Your task to perform on an android device: change your default location settings in chrome Image 0: 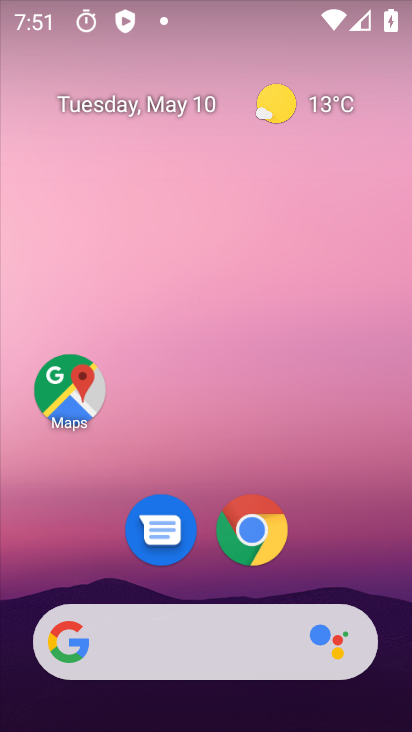
Step 0: drag from (309, 604) to (283, 128)
Your task to perform on an android device: change your default location settings in chrome Image 1: 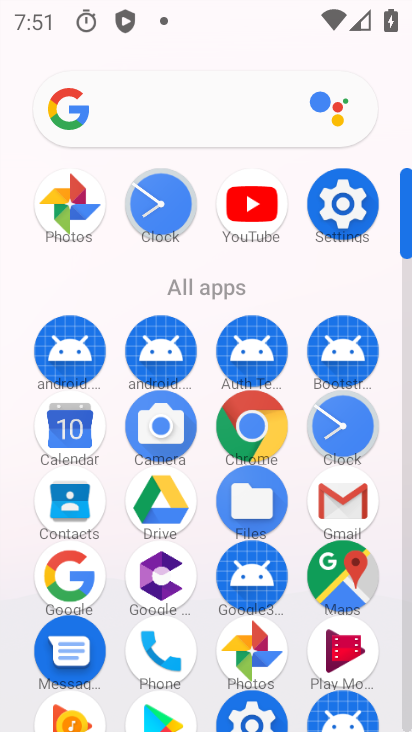
Step 1: click (248, 424)
Your task to perform on an android device: change your default location settings in chrome Image 2: 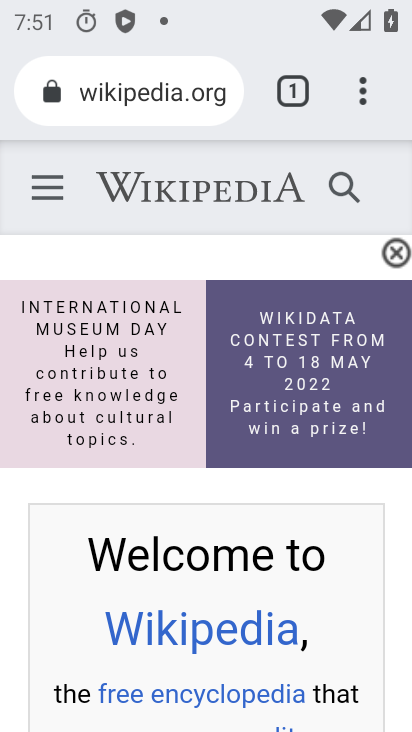
Step 2: click (365, 80)
Your task to perform on an android device: change your default location settings in chrome Image 3: 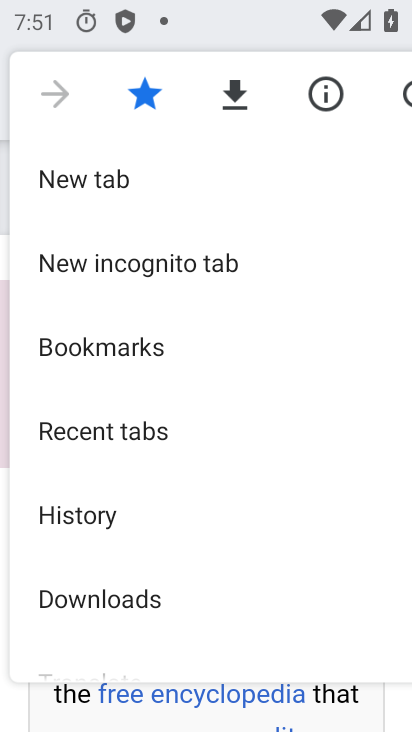
Step 3: drag from (158, 664) to (253, 252)
Your task to perform on an android device: change your default location settings in chrome Image 4: 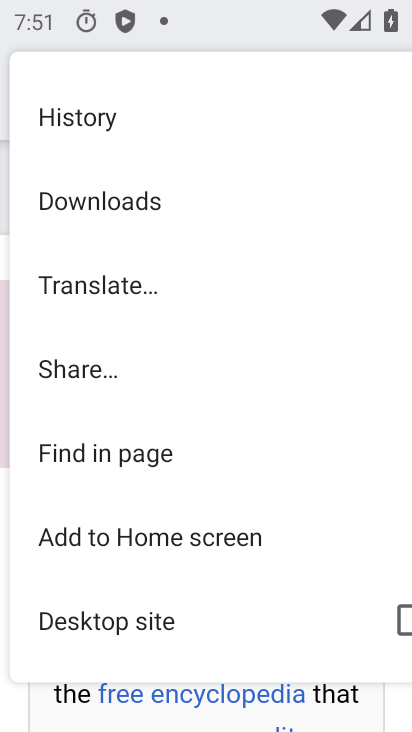
Step 4: drag from (150, 579) to (300, 246)
Your task to perform on an android device: change your default location settings in chrome Image 5: 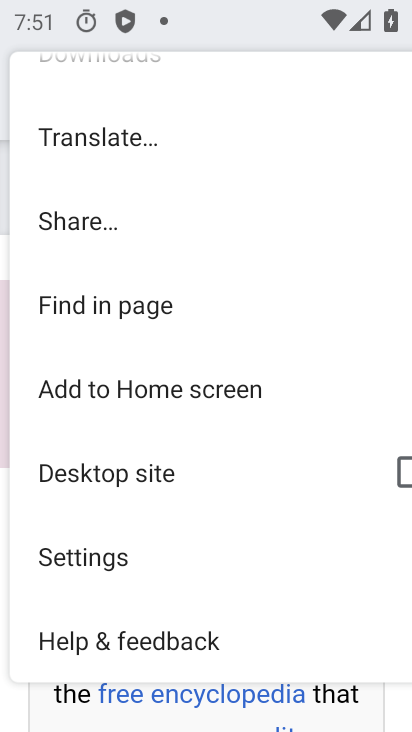
Step 5: click (92, 548)
Your task to perform on an android device: change your default location settings in chrome Image 6: 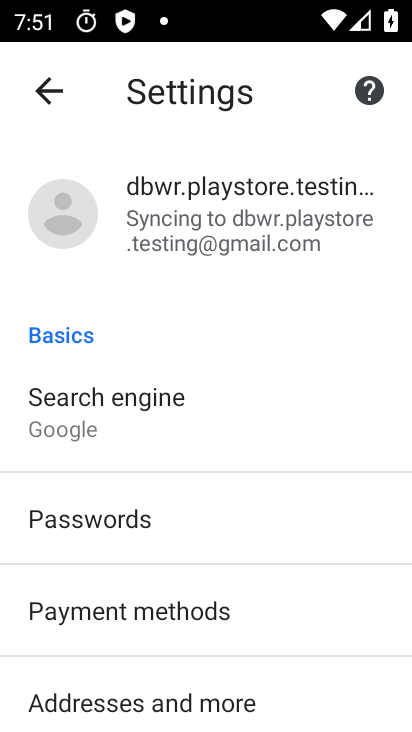
Step 6: drag from (320, 605) to (293, 168)
Your task to perform on an android device: change your default location settings in chrome Image 7: 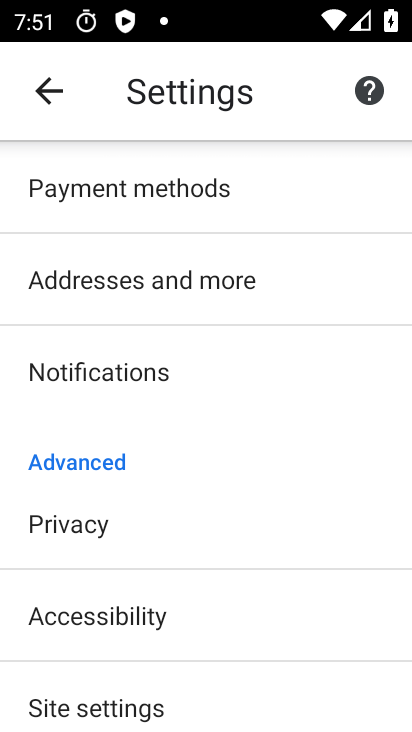
Step 7: drag from (216, 620) to (228, 296)
Your task to perform on an android device: change your default location settings in chrome Image 8: 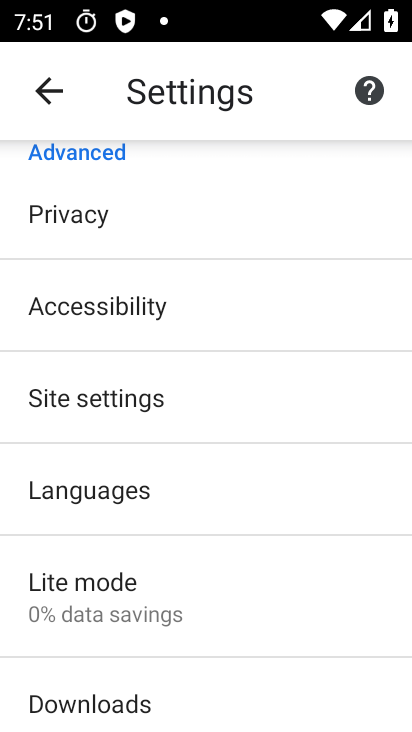
Step 8: click (170, 401)
Your task to perform on an android device: change your default location settings in chrome Image 9: 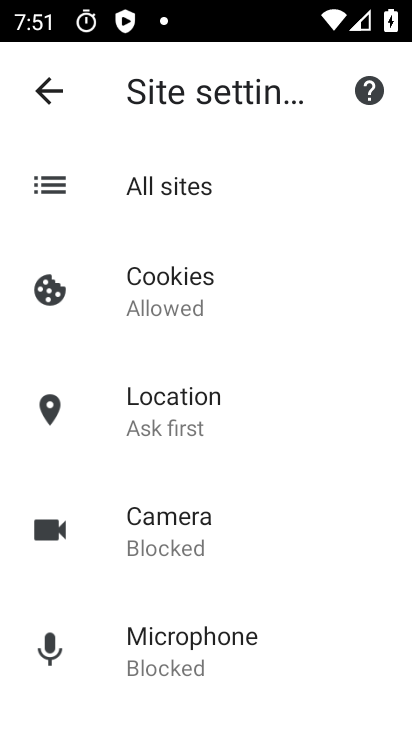
Step 9: drag from (263, 613) to (243, 263)
Your task to perform on an android device: change your default location settings in chrome Image 10: 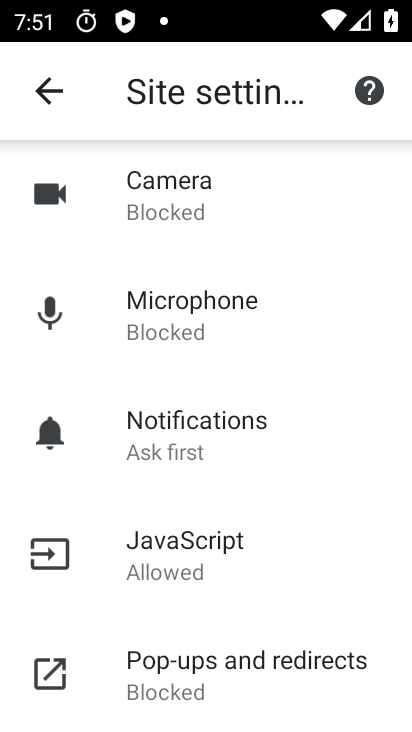
Step 10: drag from (308, 567) to (358, 249)
Your task to perform on an android device: change your default location settings in chrome Image 11: 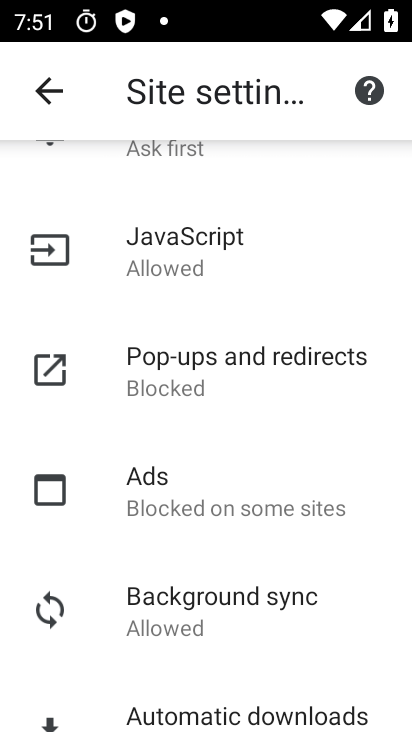
Step 11: drag from (278, 225) to (328, 77)
Your task to perform on an android device: change your default location settings in chrome Image 12: 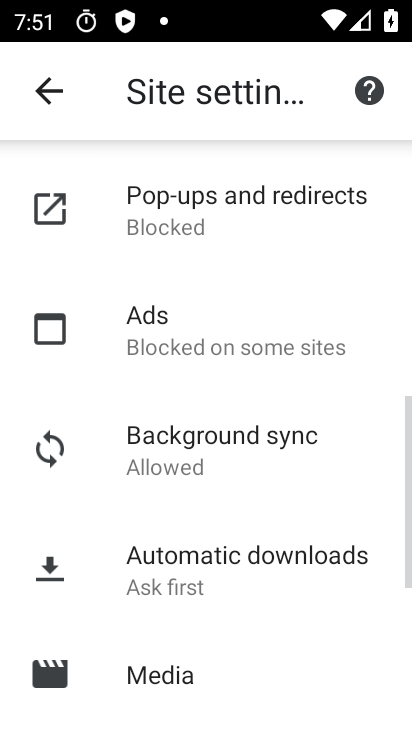
Step 12: drag from (196, 573) to (237, 173)
Your task to perform on an android device: change your default location settings in chrome Image 13: 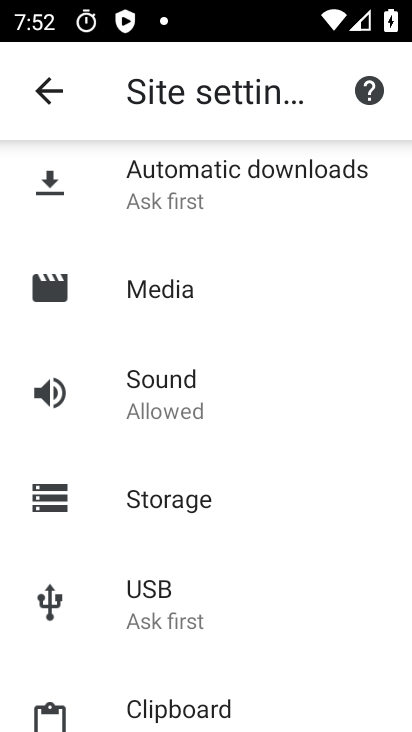
Step 13: drag from (227, 200) to (212, 684)
Your task to perform on an android device: change your default location settings in chrome Image 14: 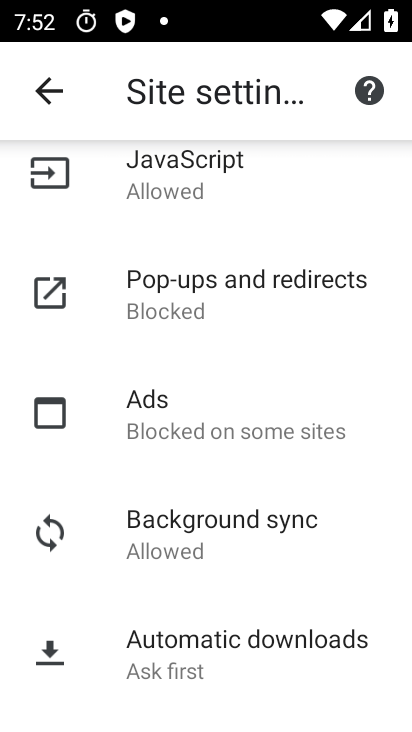
Step 14: drag from (244, 335) to (270, 682)
Your task to perform on an android device: change your default location settings in chrome Image 15: 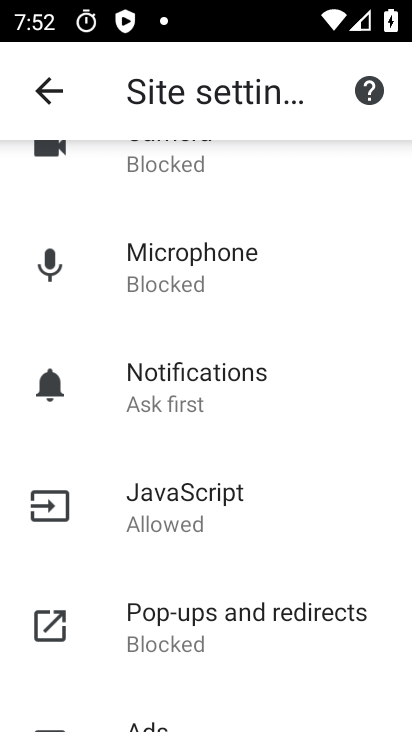
Step 15: drag from (231, 251) to (241, 610)
Your task to perform on an android device: change your default location settings in chrome Image 16: 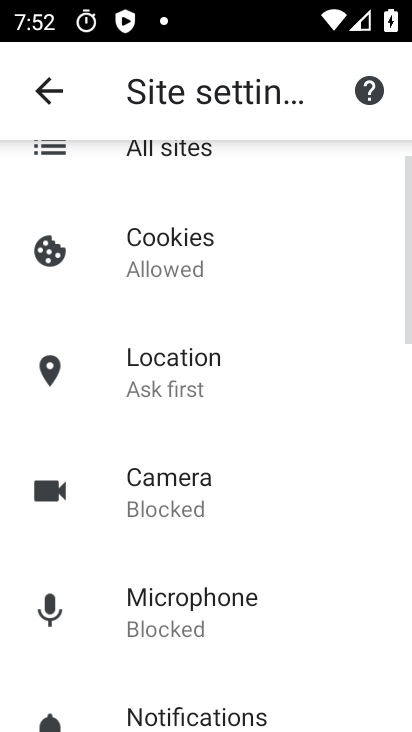
Step 16: click (179, 376)
Your task to perform on an android device: change your default location settings in chrome Image 17: 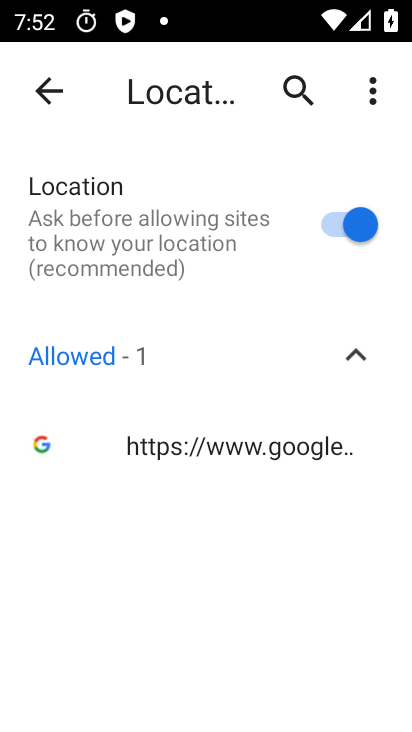
Step 17: click (353, 214)
Your task to perform on an android device: change your default location settings in chrome Image 18: 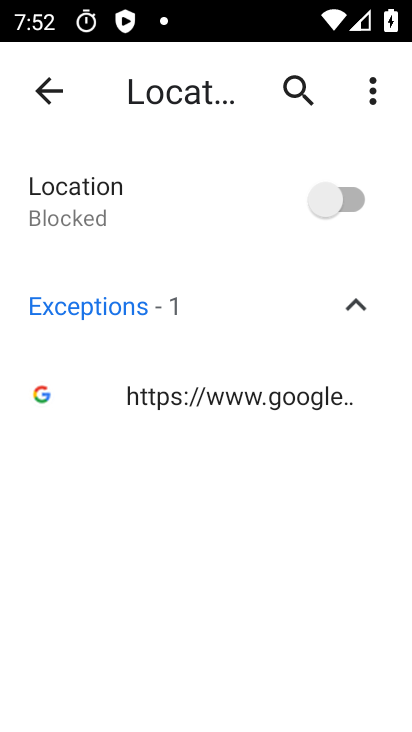
Step 18: task complete